Your task to perform on an android device: turn off notifications settings in the gmail app Image 0: 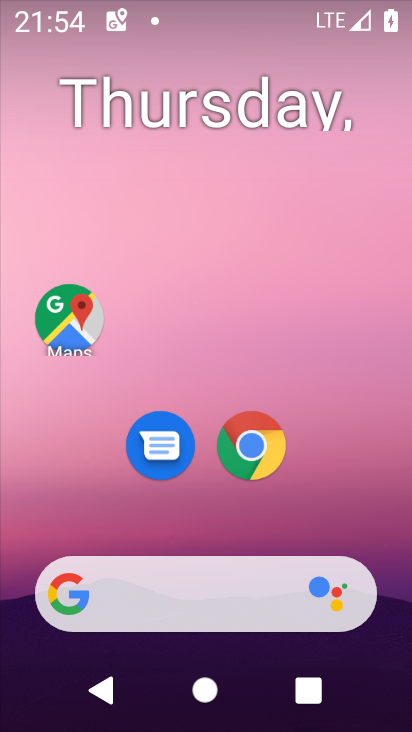
Step 0: drag from (293, 525) to (286, 181)
Your task to perform on an android device: turn off notifications settings in the gmail app Image 1: 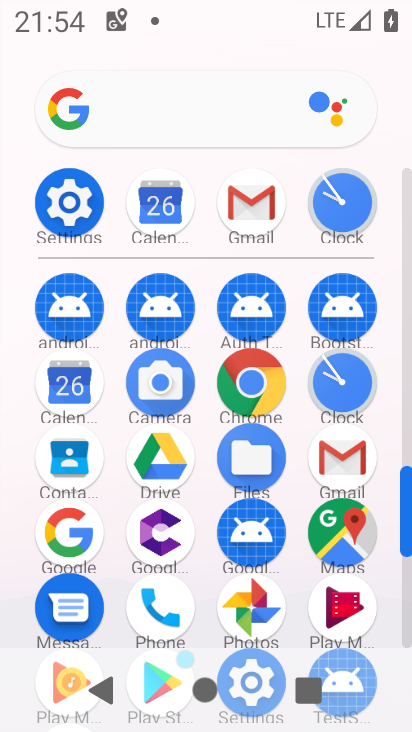
Step 1: click (336, 469)
Your task to perform on an android device: turn off notifications settings in the gmail app Image 2: 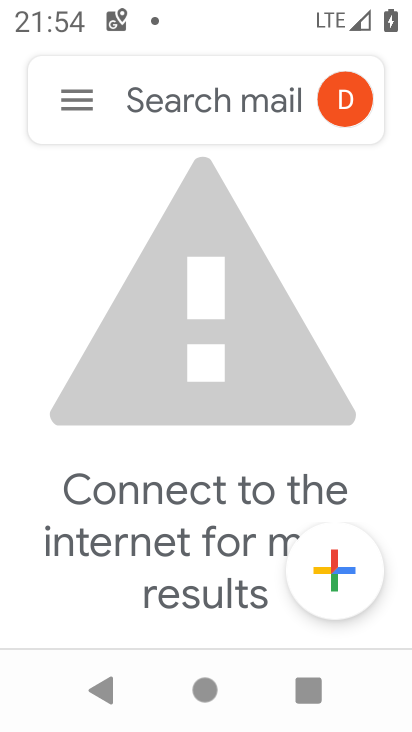
Step 2: click (74, 109)
Your task to perform on an android device: turn off notifications settings in the gmail app Image 3: 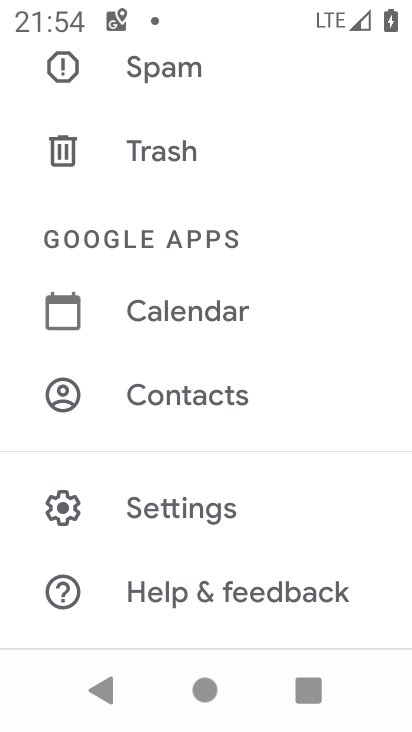
Step 3: click (233, 514)
Your task to perform on an android device: turn off notifications settings in the gmail app Image 4: 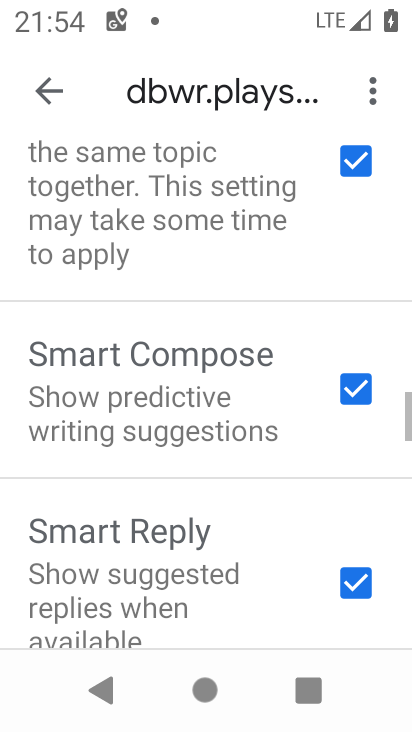
Step 4: drag from (173, 219) to (204, 609)
Your task to perform on an android device: turn off notifications settings in the gmail app Image 5: 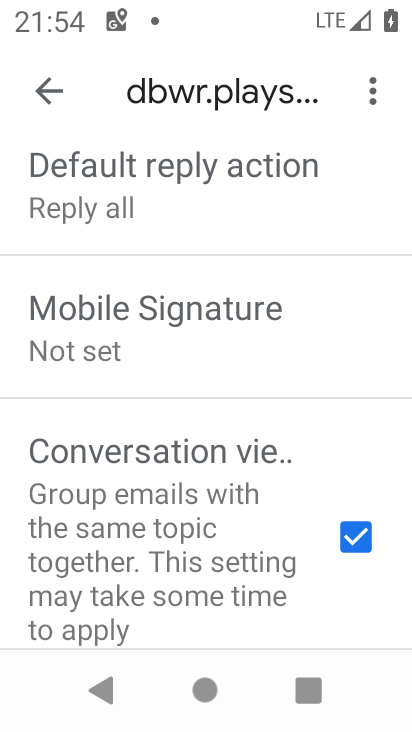
Step 5: drag from (171, 301) to (226, 580)
Your task to perform on an android device: turn off notifications settings in the gmail app Image 6: 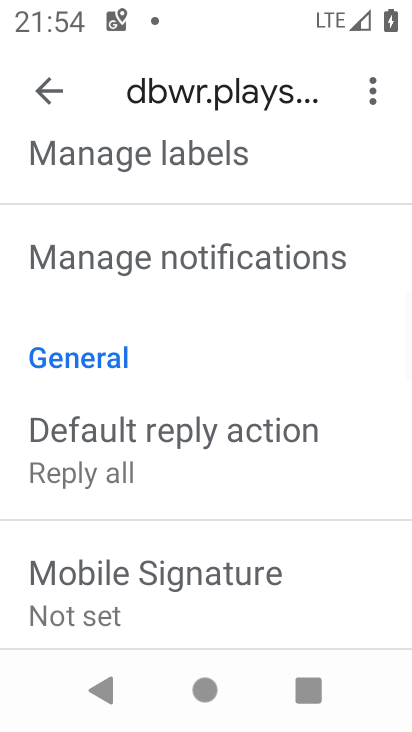
Step 6: click (172, 283)
Your task to perform on an android device: turn off notifications settings in the gmail app Image 7: 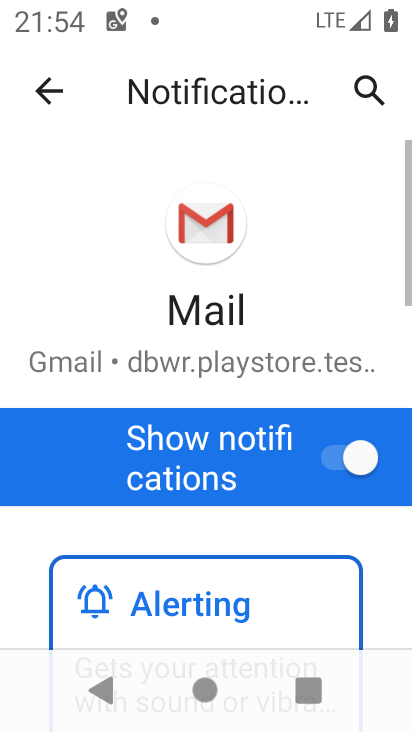
Step 7: click (354, 475)
Your task to perform on an android device: turn off notifications settings in the gmail app Image 8: 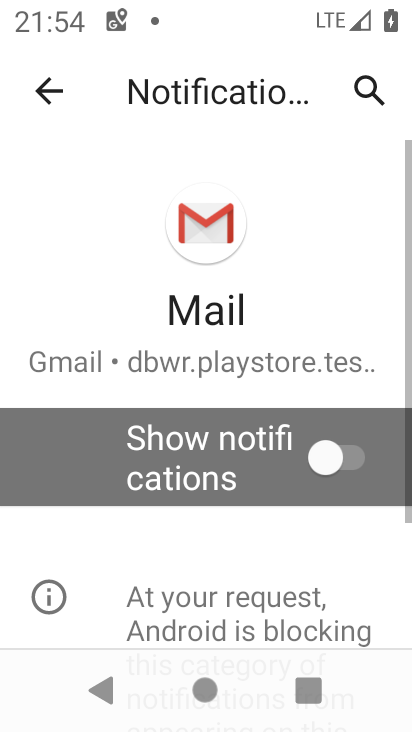
Step 8: task complete